Your task to perform on an android device: Check the weather Image 0: 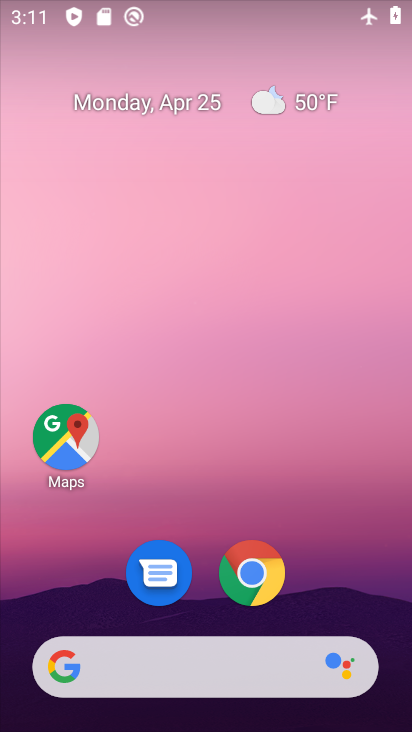
Step 0: drag from (365, 559) to (346, 83)
Your task to perform on an android device: Check the weather Image 1: 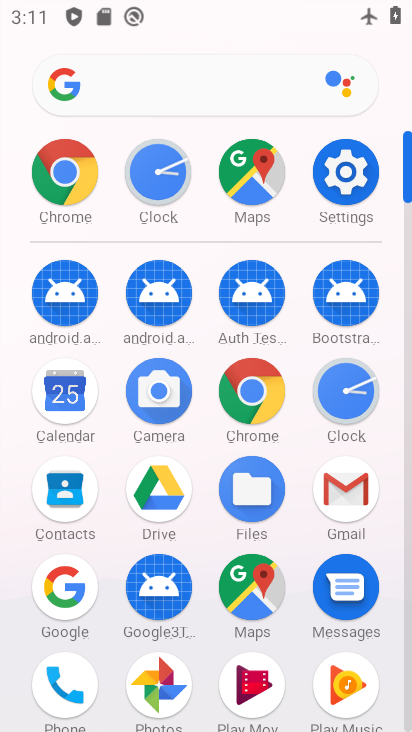
Step 1: click (67, 569)
Your task to perform on an android device: Check the weather Image 2: 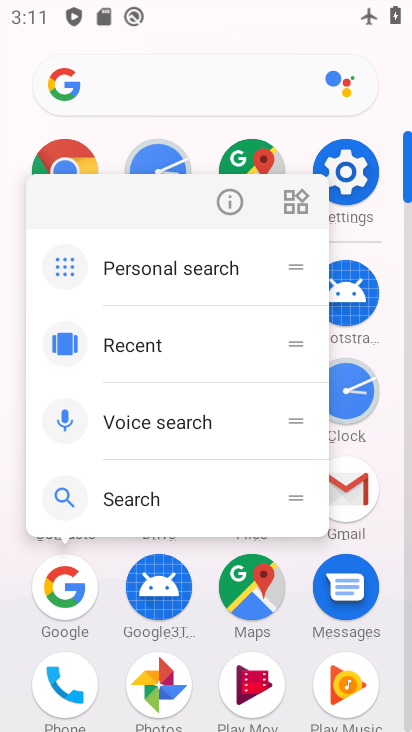
Step 2: click (67, 569)
Your task to perform on an android device: Check the weather Image 3: 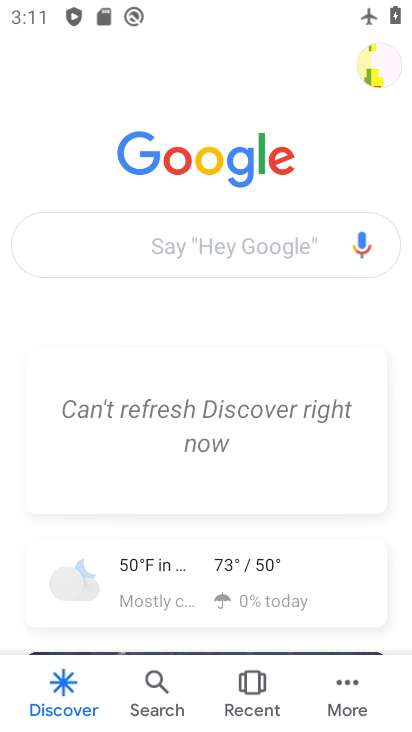
Step 3: click (168, 557)
Your task to perform on an android device: Check the weather Image 4: 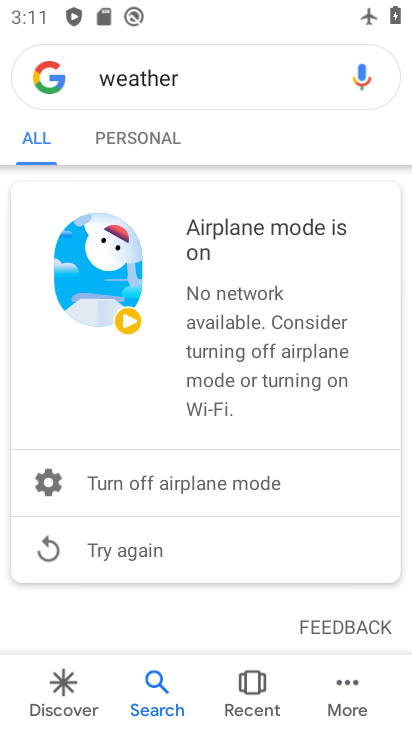
Step 4: task complete